Your task to perform on an android device: add a label to a message in the gmail app Image 0: 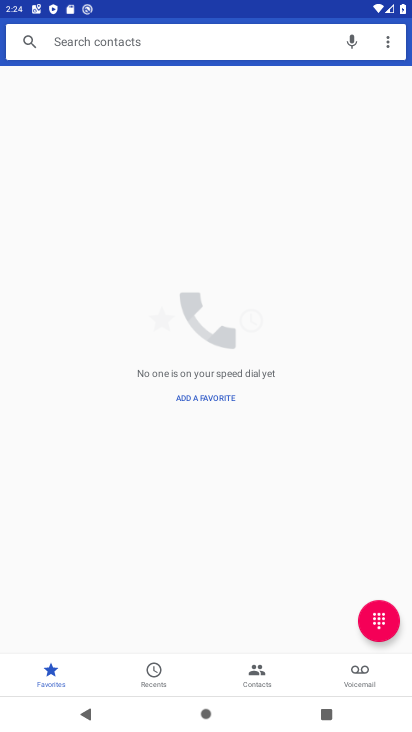
Step 0: press home button
Your task to perform on an android device: add a label to a message in the gmail app Image 1: 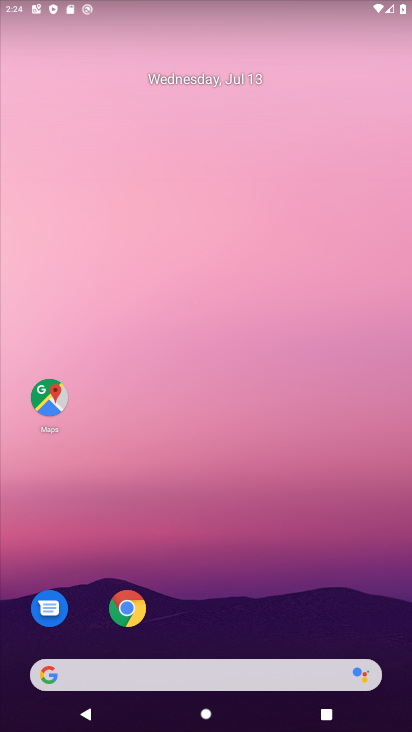
Step 1: drag from (217, 414) to (241, 239)
Your task to perform on an android device: add a label to a message in the gmail app Image 2: 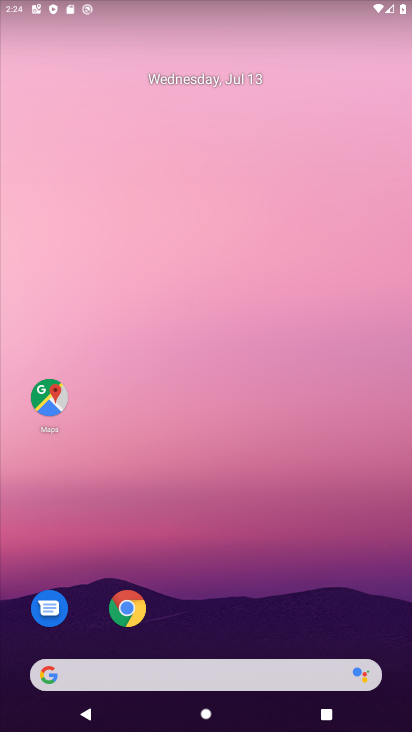
Step 2: drag from (208, 394) to (240, 54)
Your task to perform on an android device: add a label to a message in the gmail app Image 3: 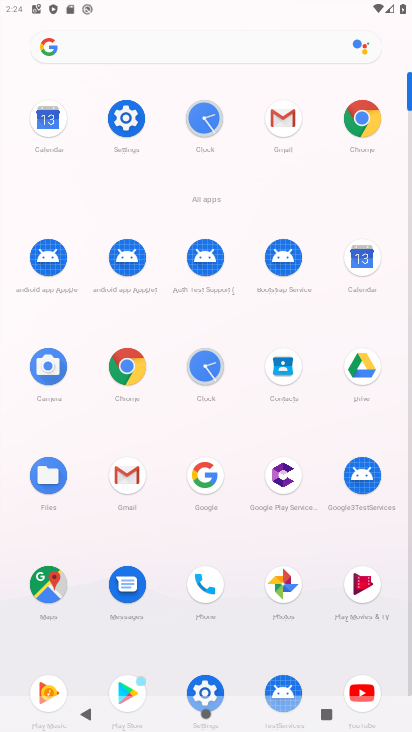
Step 3: click (287, 121)
Your task to perform on an android device: add a label to a message in the gmail app Image 4: 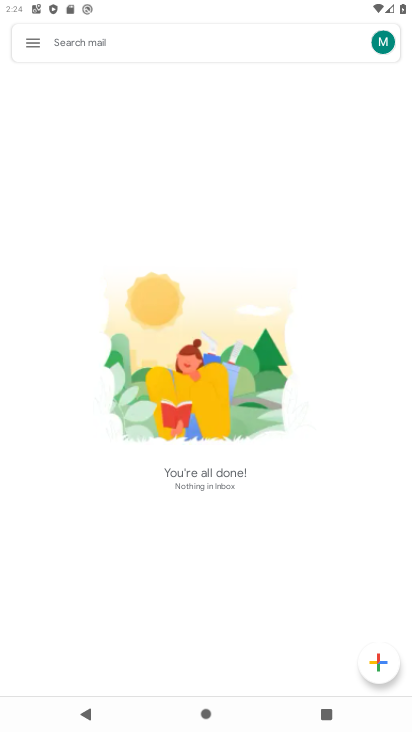
Step 4: click (27, 45)
Your task to perform on an android device: add a label to a message in the gmail app Image 5: 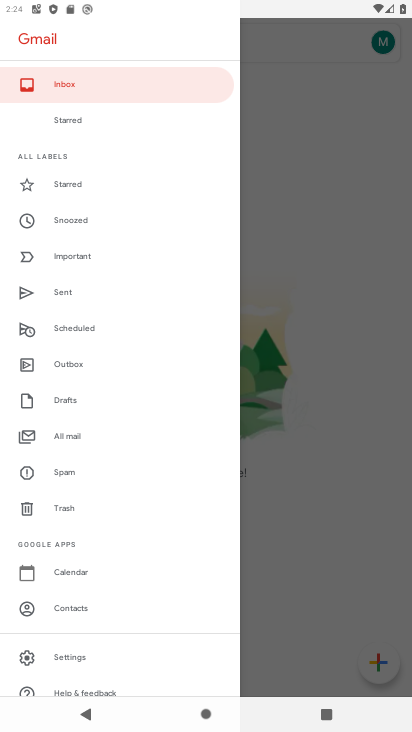
Step 5: click (62, 441)
Your task to perform on an android device: add a label to a message in the gmail app Image 6: 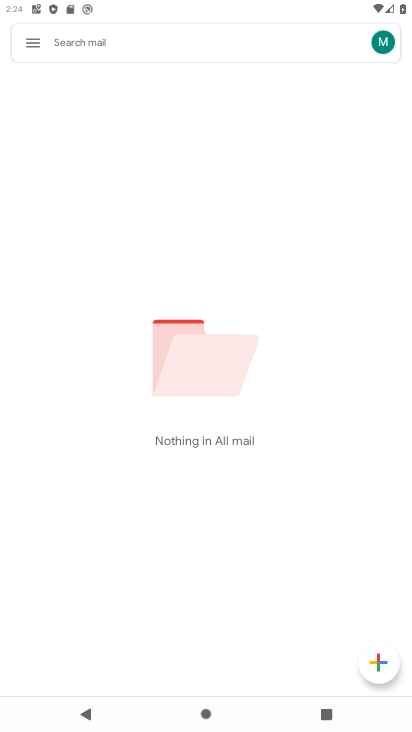
Step 6: task complete